Your task to perform on an android device: turn pop-ups on in chrome Image 0: 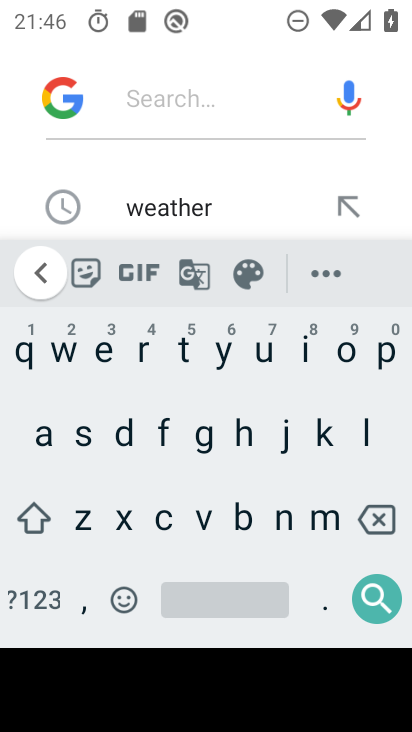
Step 0: press home button
Your task to perform on an android device: turn pop-ups on in chrome Image 1: 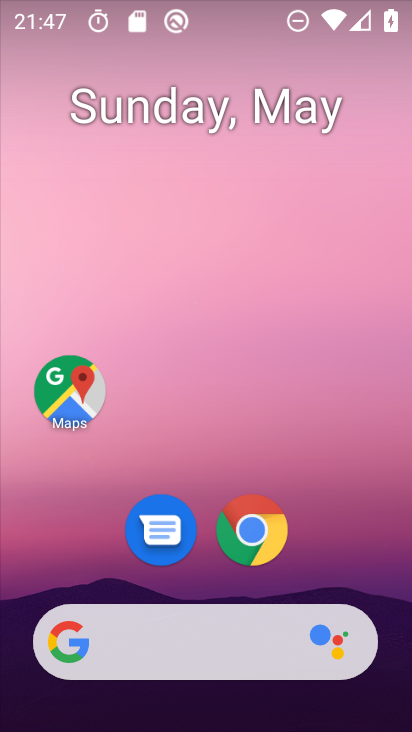
Step 1: drag from (248, 679) to (110, 74)
Your task to perform on an android device: turn pop-ups on in chrome Image 2: 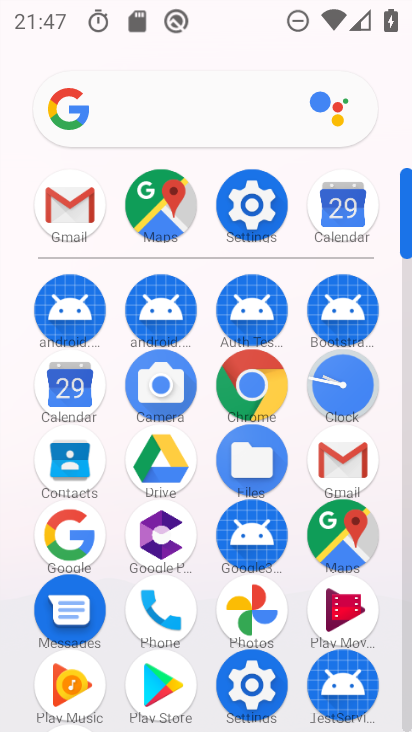
Step 2: click (270, 389)
Your task to perform on an android device: turn pop-ups on in chrome Image 3: 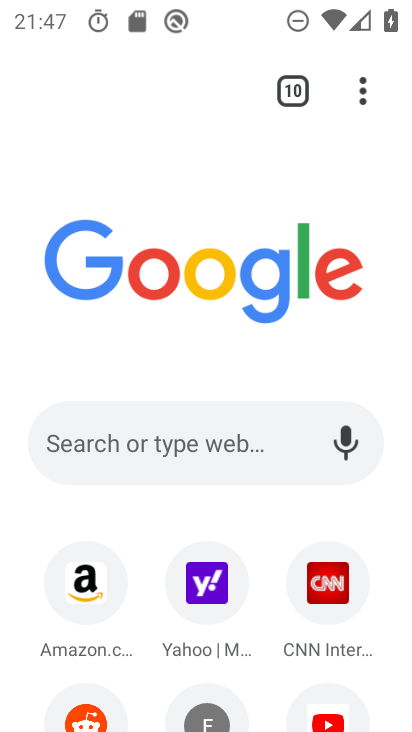
Step 3: click (359, 94)
Your task to perform on an android device: turn pop-ups on in chrome Image 4: 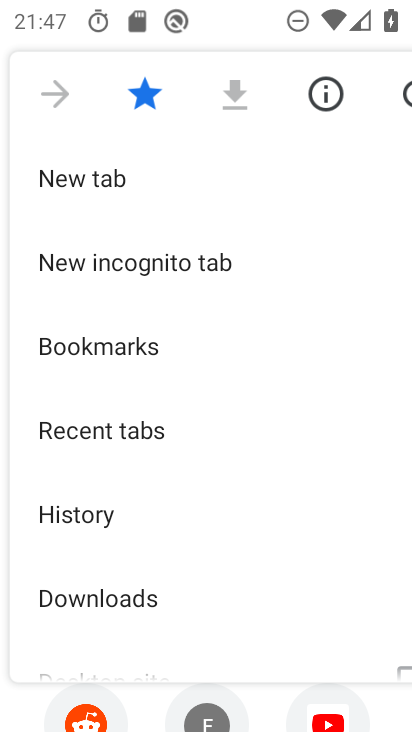
Step 4: drag from (193, 554) to (217, 105)
Your task to perform on an android device: turn pop-ups on in chrome Image 5: 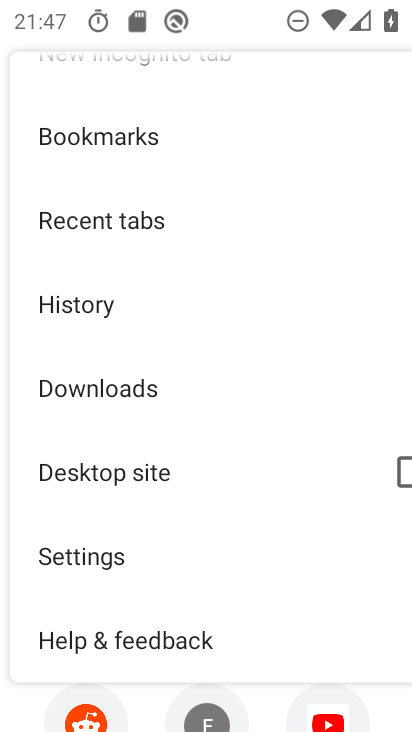
Step 5: click (118, 550)
Your task to perform on an android device: turn pop-ups on in chrome Image 6: 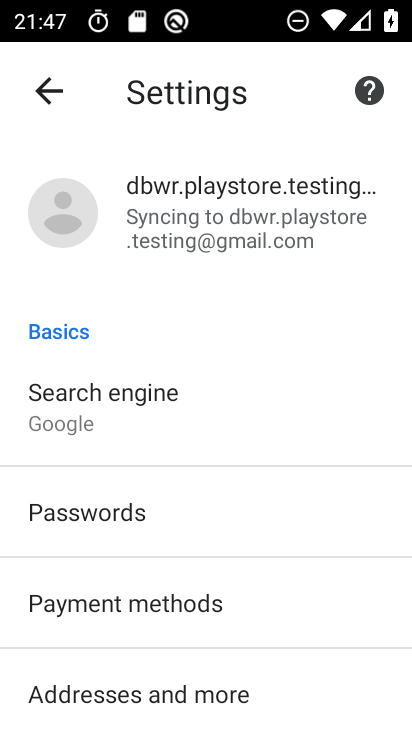
Step 6: drag from (208, 600) to (220, 115)
Your task to perform on an android device: turn pop-ups on in chrome Image 7: 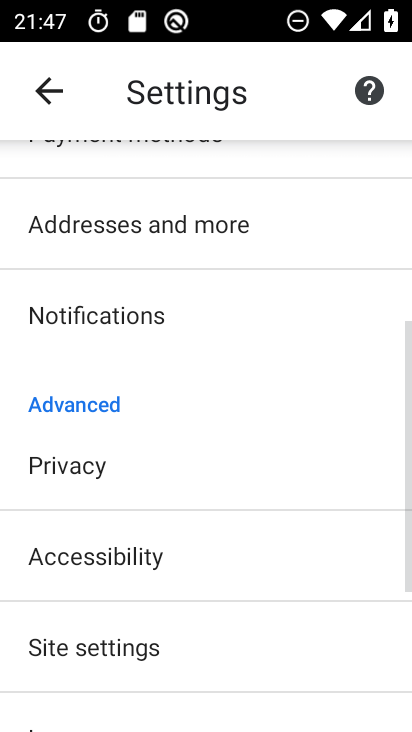
Step 7: drag from (203, 408) to (179, 0)
Your task to perform on an android device: turn pop-ups on in chrome Image 8: 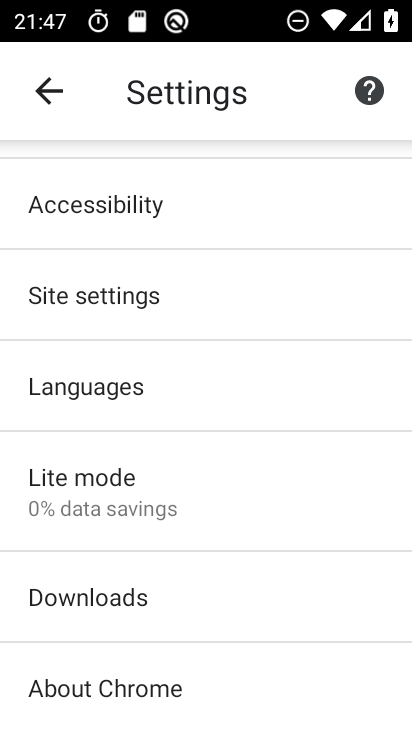
Step 8: click (114, 278)
Your task to perform on an android device: turn pop-ups on in chrome Image 9: 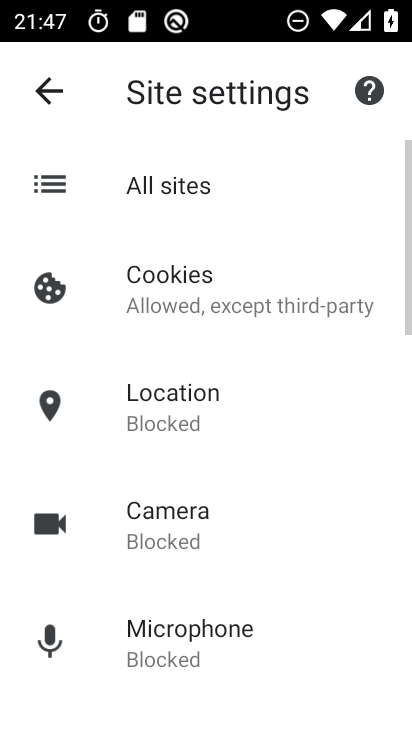
Step 9: drag from (164, 597) to (152, 126)
Your task to perform on an android device: turn pop-ups on in chrome Image 10: 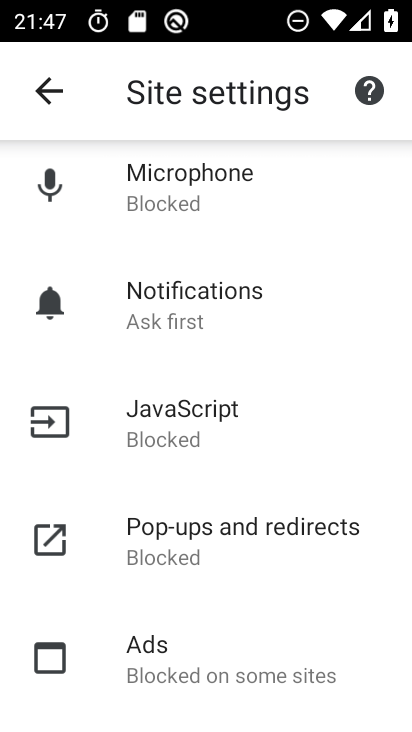
Step 10: click (214, 530)
Your task to perform on an android device: turn pop-ups on in chrome Image 11: 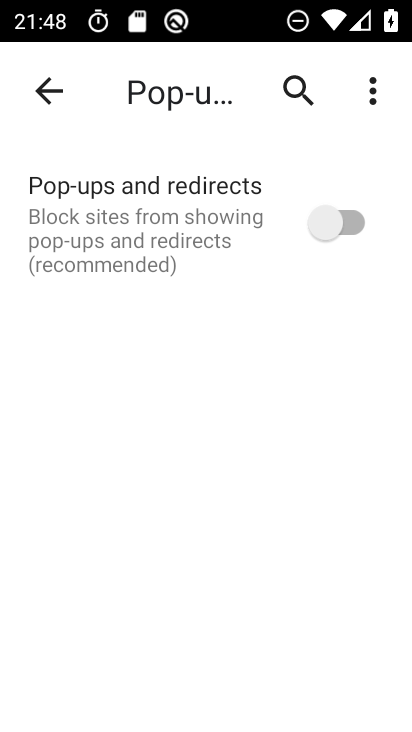
Step 11: click (352, 230)
Your task to perform on an android device: turn pop-ups on in chrome Image 12: 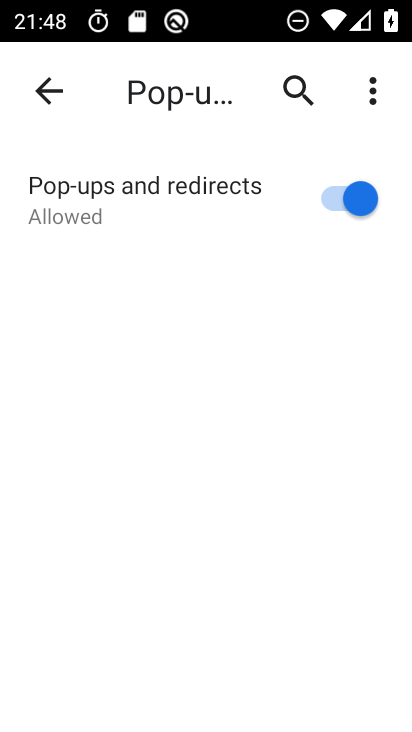
Step 12: task complete